Your task to perform on an android device: Open ESPN.com Image 0: 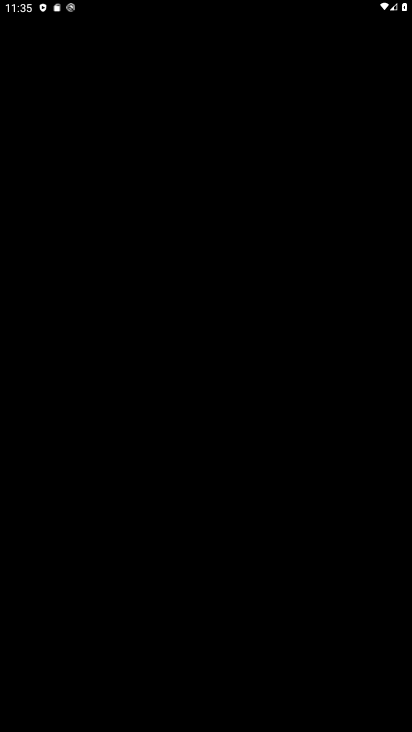
Step 0: press home button
Your task to perform on an android device: Open ESPN.com Image 1: 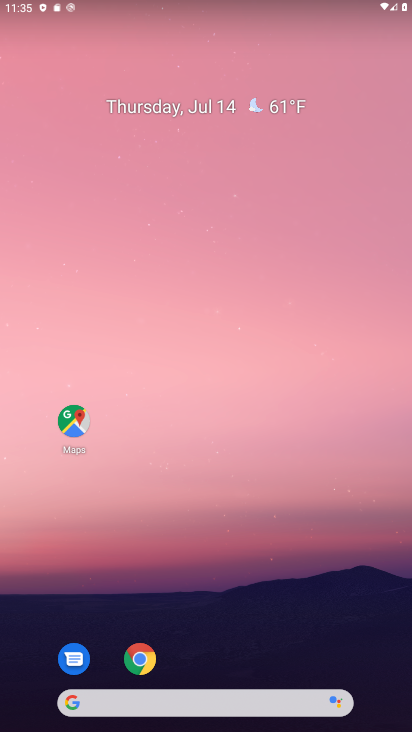
Step 1: click (141, 662)
Your task to perform on an android device: Open ESPN.com Image 2: 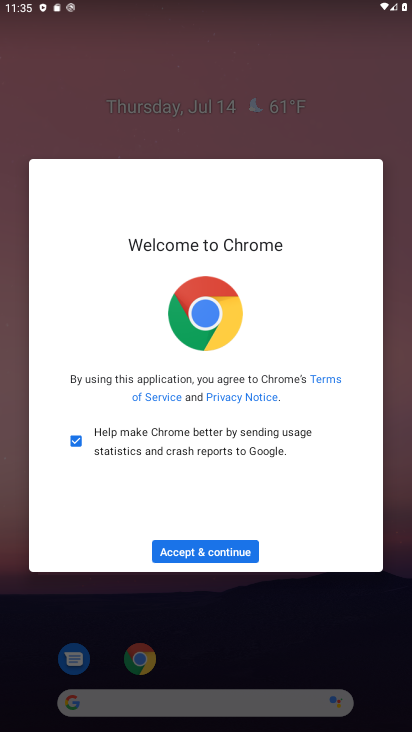
Step 2: click (204, 557)
Your task to perform on an android device: Open ESPN.com Image 3: 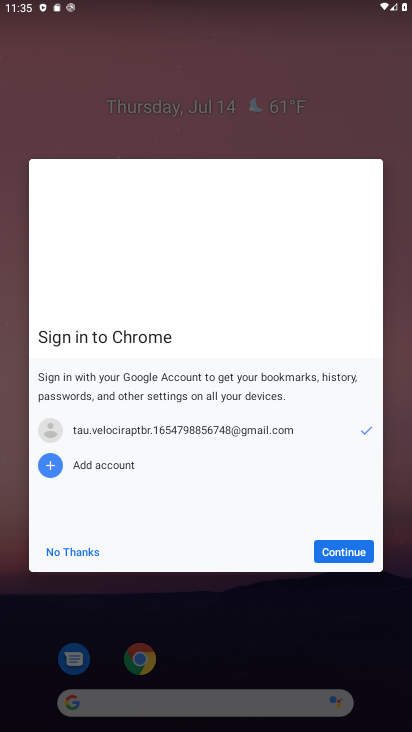
Step 3: click (342, 552)
Your task to perform on an android device: Open ESPN.com Image 4: 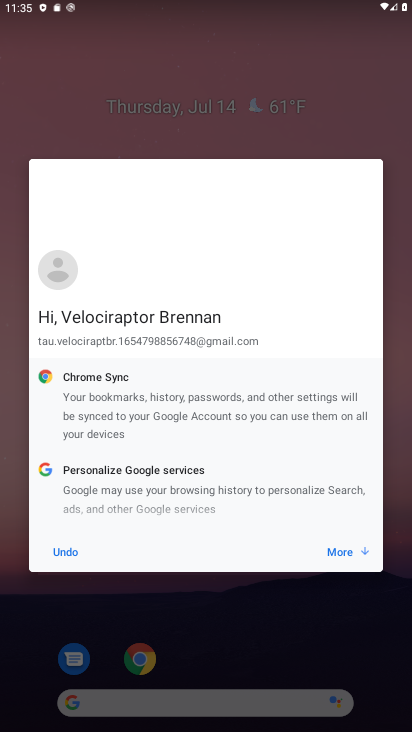
Step 4: click (342, 552)
Your task to perform on an android device: Open ESPN.com Image 5: 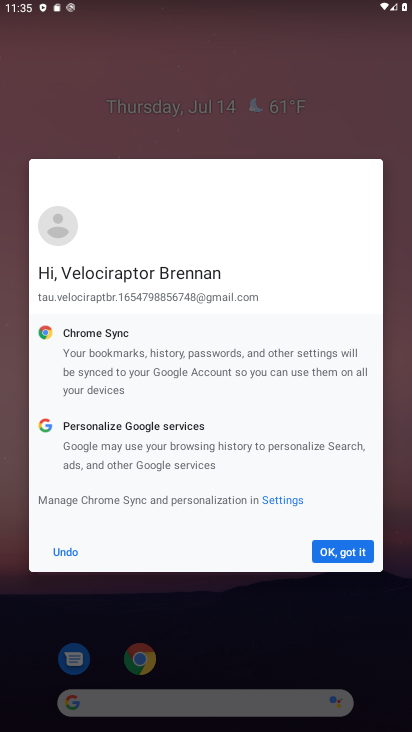
Step 5: click (342, 552)
Your task to perform on an android device: Open ESPN.com Image 6: 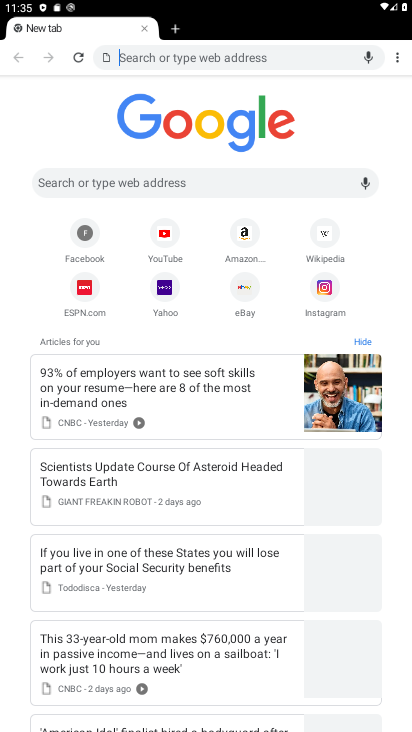
Step 6: click (278, 182)
Your task to perform on an android device: Open ESPN.com Image 7: 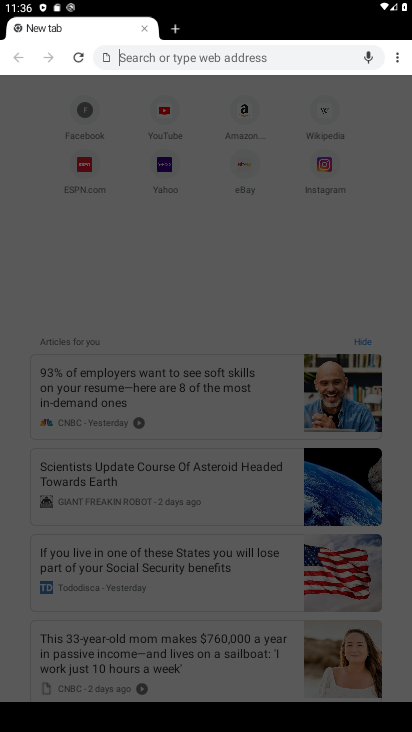
Step 7: type "ESPN.com"
Your task to perform on an android device: Open ESPN.com Image 8: 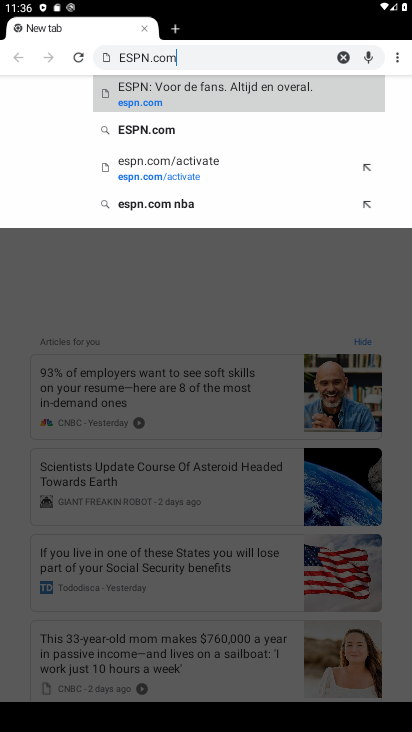
Step 8: click (172, 123)
Your task to perform on an android device: Open ESPN.com Image 9: 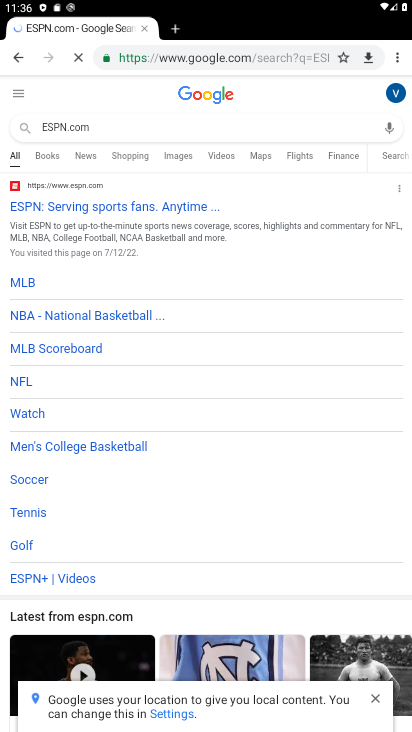
Step 9: click (105, 214)
Your task to perform on an android device: Open ESPN.com Image 10: 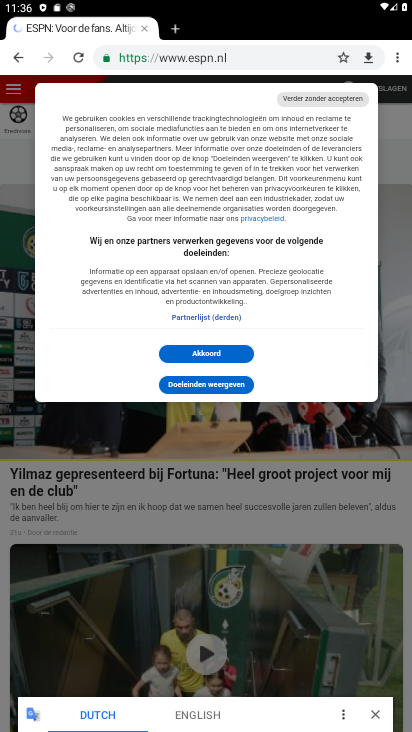
Step 10: click (213, 352)
Your task to perform on an android device: Open ESPN.com Image 11: 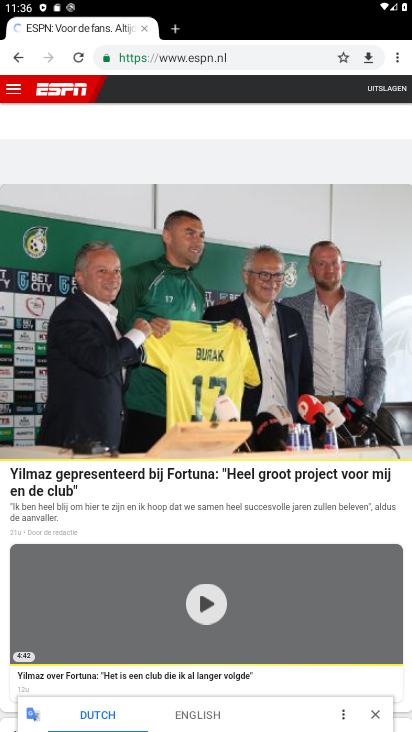
Step 11: task complete